Your task to perform on an android device: Go to display settings Image 0: 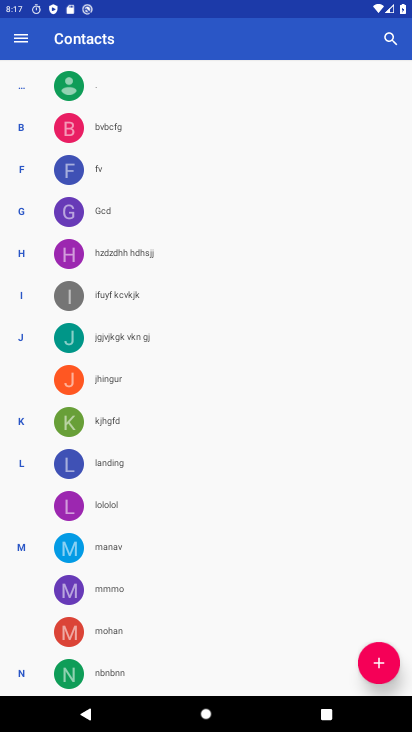
Step 0: press home button
Your task to perform on an android device: Go to display settings Image 1: 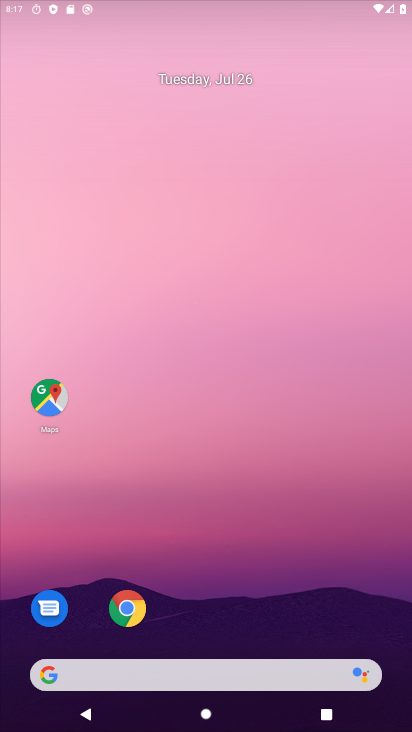
Step 1: drag from (212, 705) to (264, 3)
Your task to perform on an android device: Go to display settings Image 2: 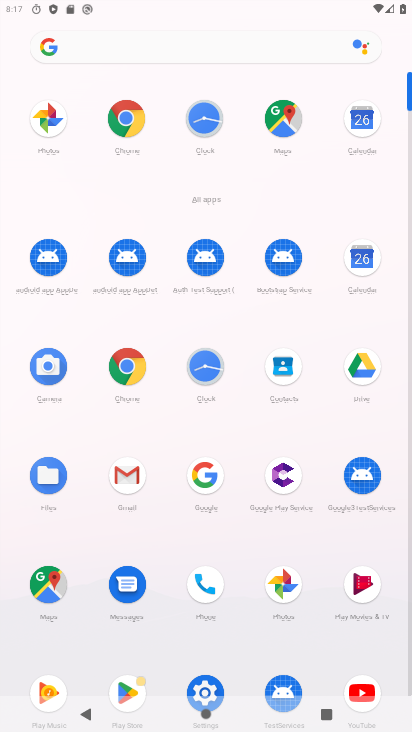
Step 2: click (207, 686)
Your task to perform on an android device: Go to display settings Image 3: 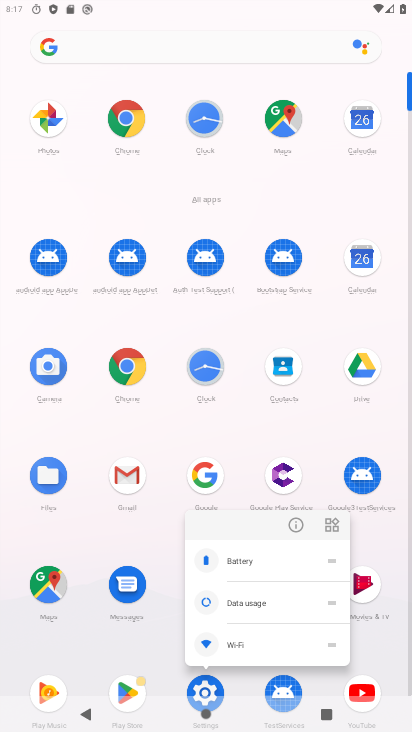
Step 3: click (207, 684)
Your task to perform on an android device: Go to display settings Image 4: 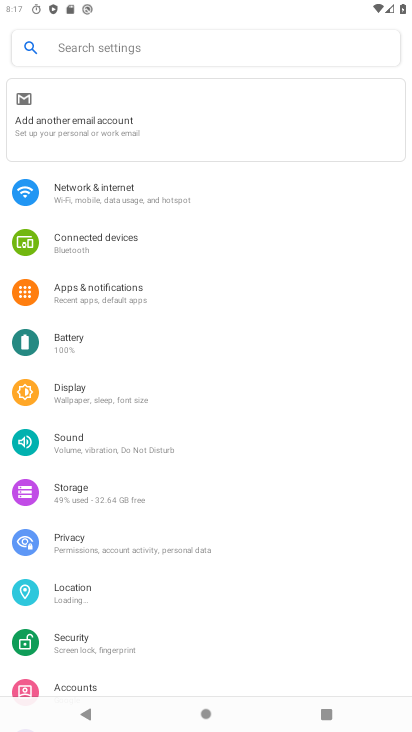
Step 4: click (72, 404)
Your task to perform on an android device: Go to display settings Image 5: 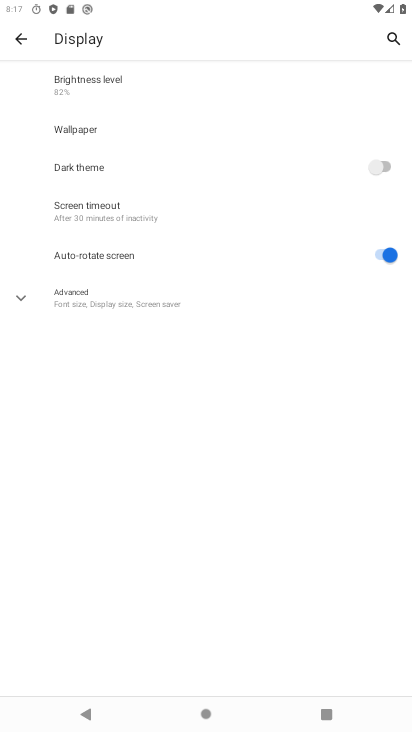
Step 5: task complete